Your task to perform on an android device: Is it going to rain this weekend? Image 0: 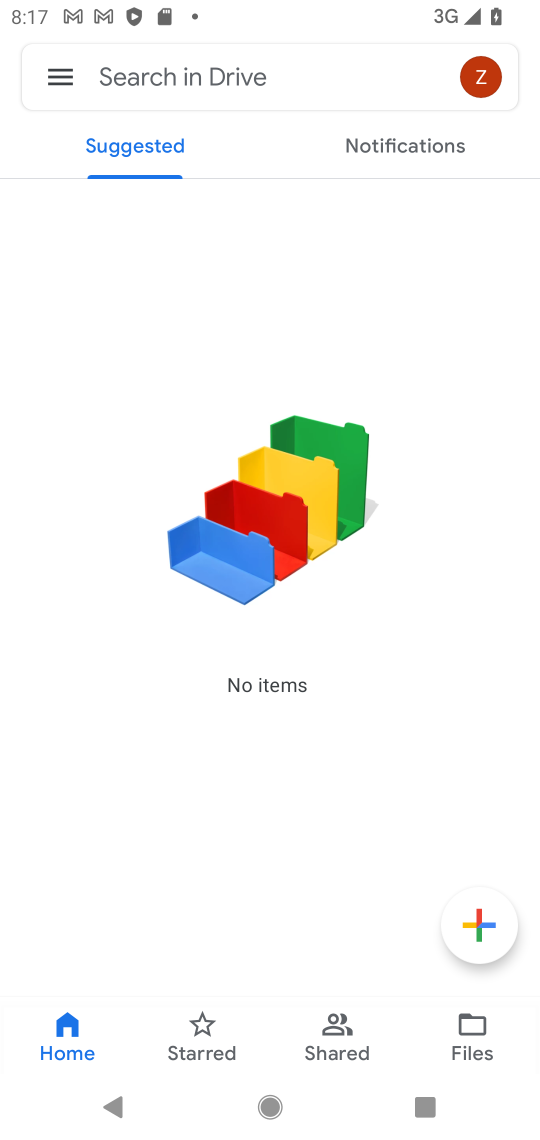
Step 0: press home button
Your task to perform on an android device: Is it going to rain this weekend? Image 1: 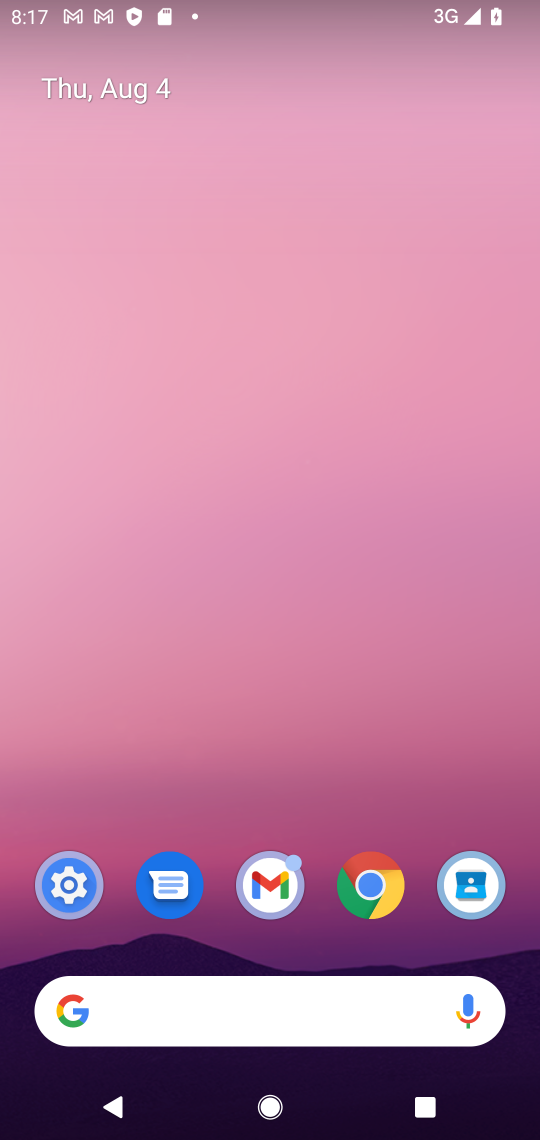
Step 1: click (363, 911)
Your task to perform on an android device: Is it going to rain this weekend? Image 2: 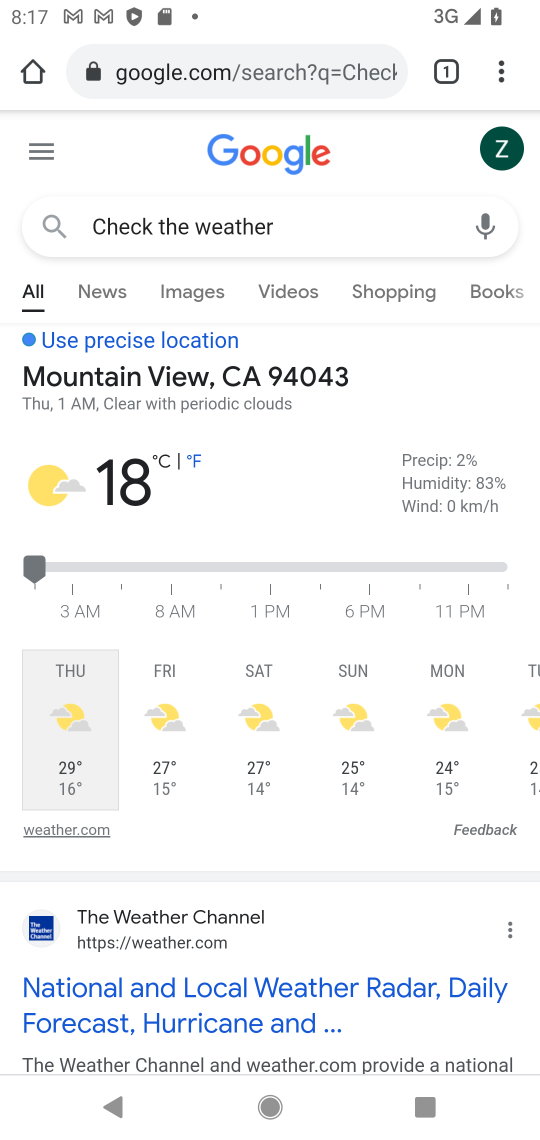
Step 2: click (301, 71)
Your task to perform on an android device: Is it going to rain this weekend? Image 3: 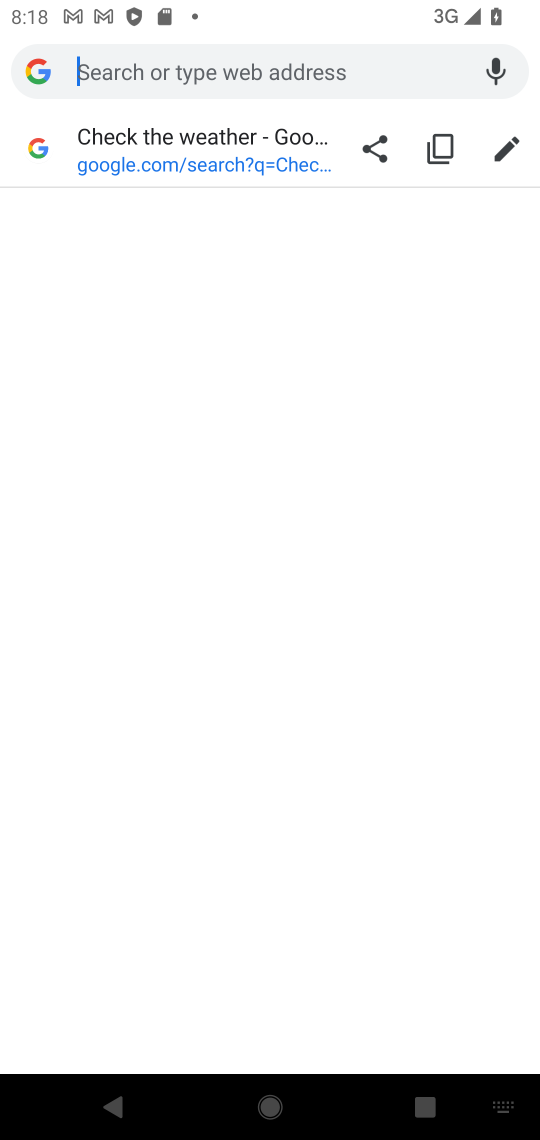
Step 3: type "Is it going to rain this weekend?"
Your task to perform on an android device: Is it going to rain this weekend? Image 4: 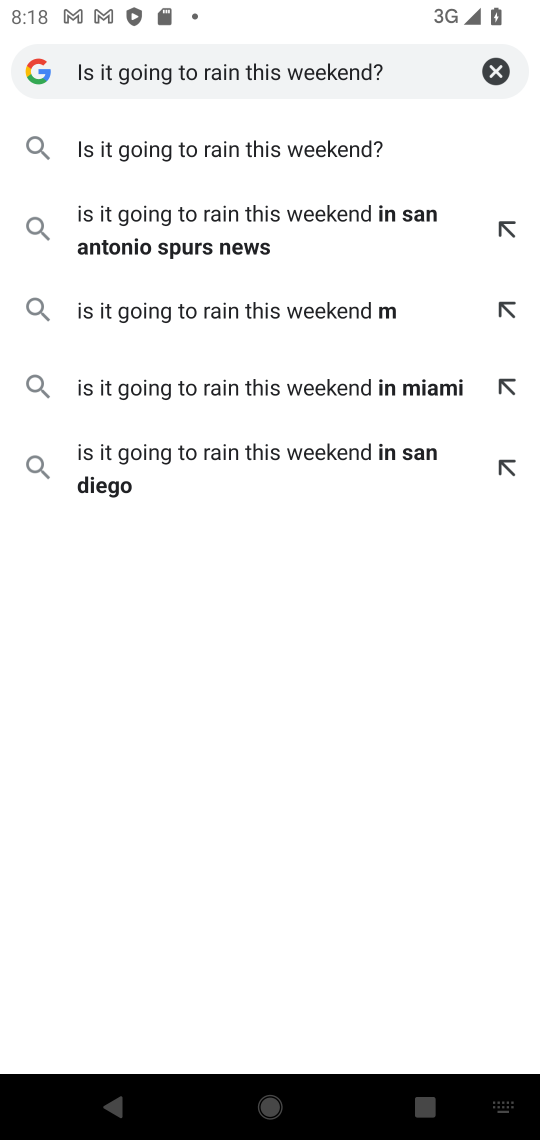
Step 4: click (260, 149)
Your task to perform on an android device: Is it going to rain this weekend? Image 5: 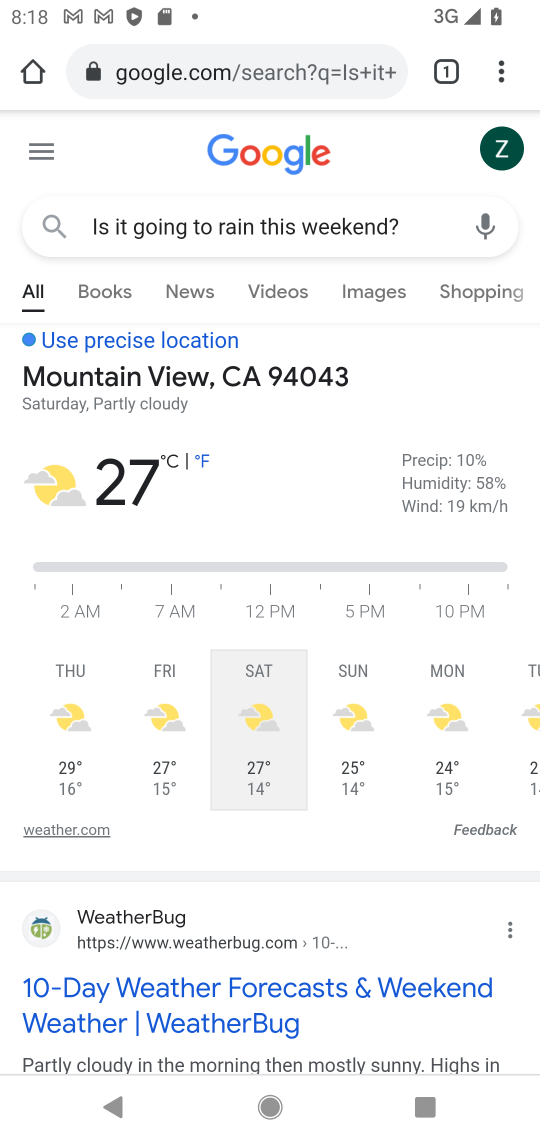
Step 5: task complete